Your task to perform on an android device: Open the phone app and click the voicemail tab. Image 0: 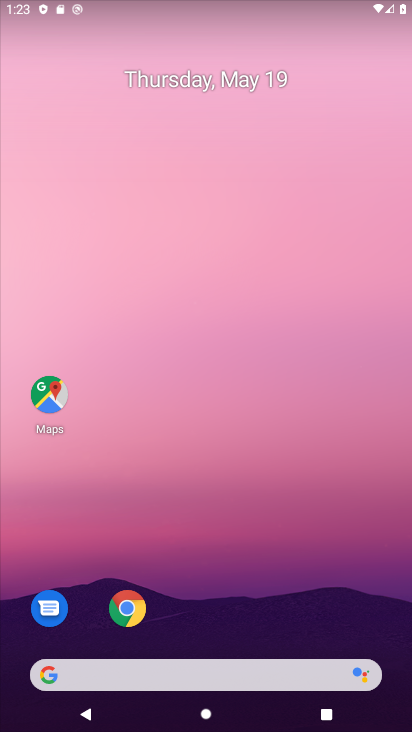
Step 0: drag from (253, 599) to (155, 179)
Your task to perform on an android device: Open the phone app and click the voicemail tab. Image 1: 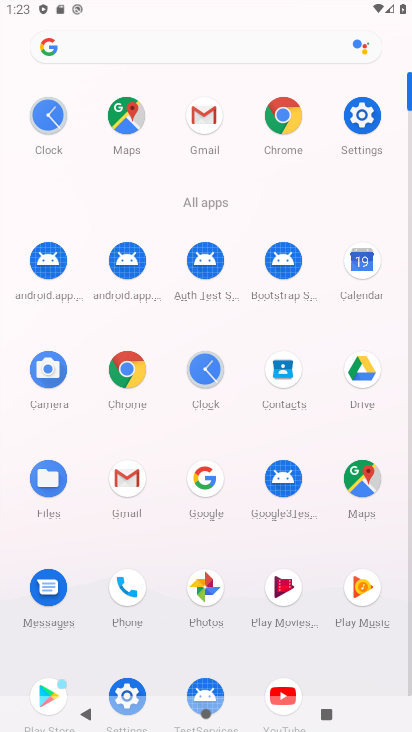
Step 1: click (119, 624)
Your task to perform on an android device: Open the phone app and click the voicemail tab. Image 2: 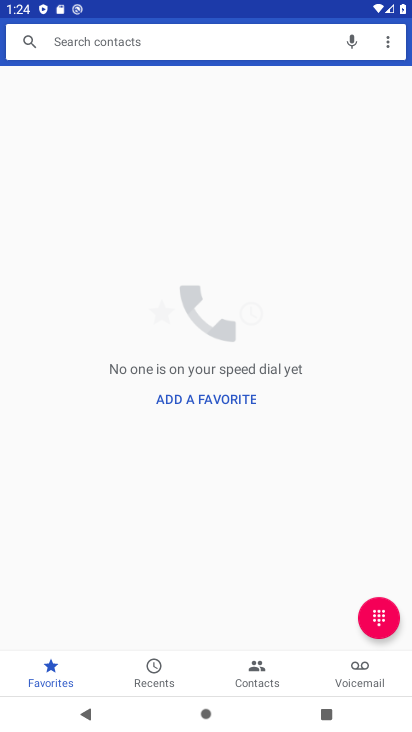
Step 2: click (362, 688)
Your task to perform on an android device: Open the phone app and click the voicemail tab. Image 3: 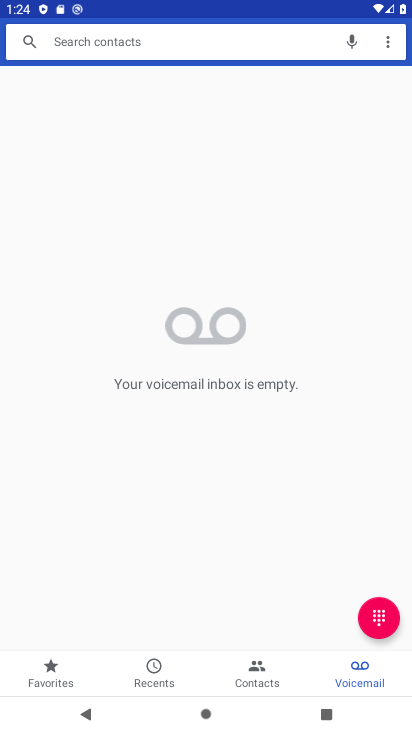
Step 3: task complete